Your task to perform on an android device: open the mobile data screen to see how much data has been used Image 0: 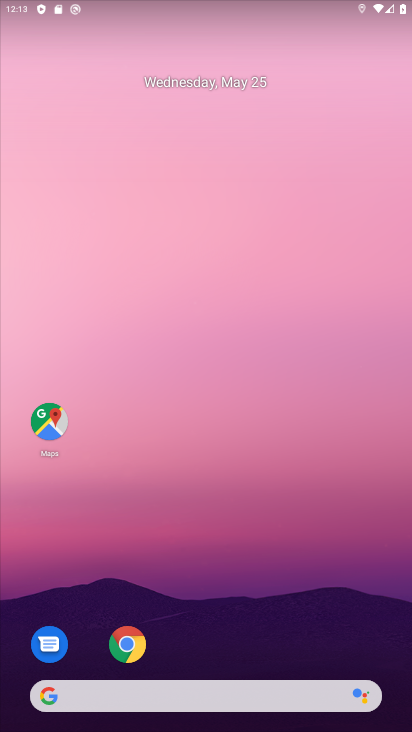
Step 0: drag from (274, 599) to (215, 95)
Your task to perform on an android device: open the mobile data screen to see how much data has been used Image 1: 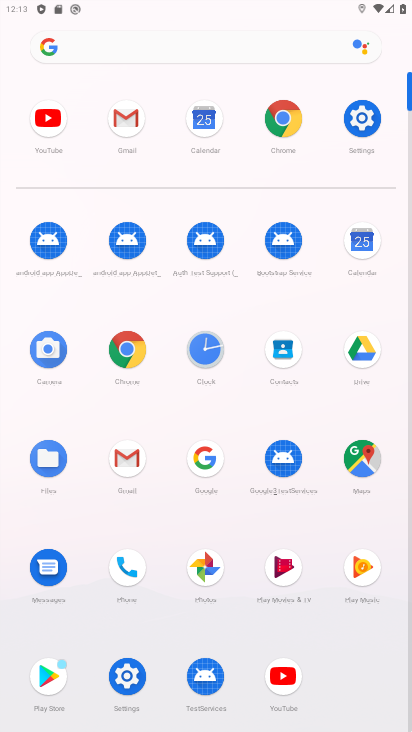
Step 1: click (361, 113)
Your task to perform on an android device: open the mobile data screen to see how much data has been used Image 2: 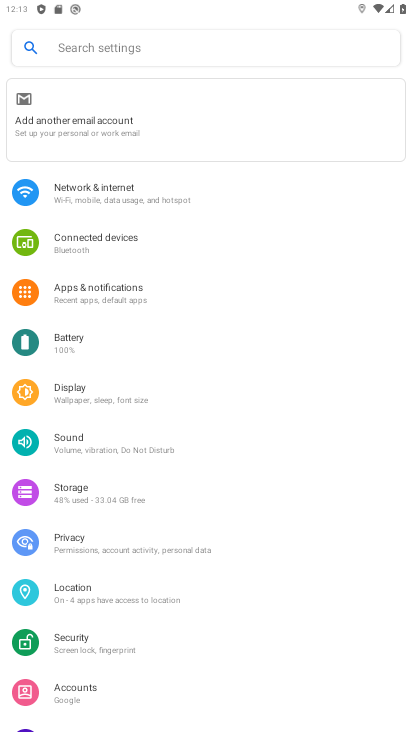
Step 2: click (106, 185)
Your task to perform on an android device: open the mobile data screen to see how much data has been used Image 3: 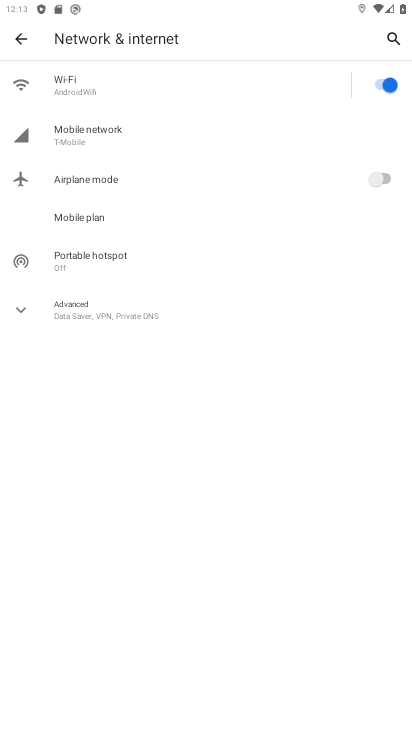
Step 3: click (62, 123)
Your task to perform on an android device: open the mobile data screen to see how much data has been used Image 4: 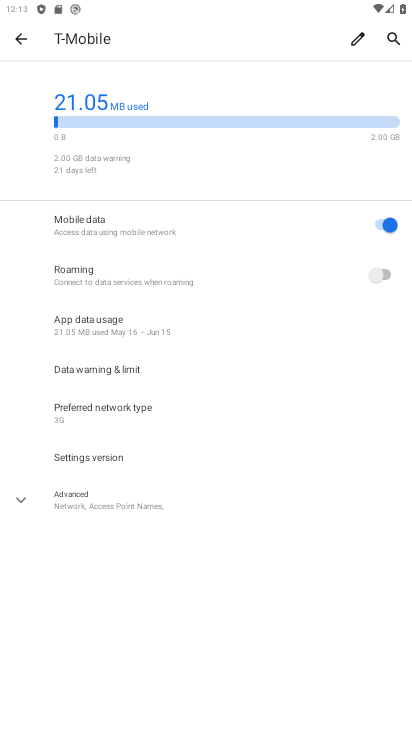
Step 4: task complete